Your task to perform on an android device: What is the news today? Image 0: 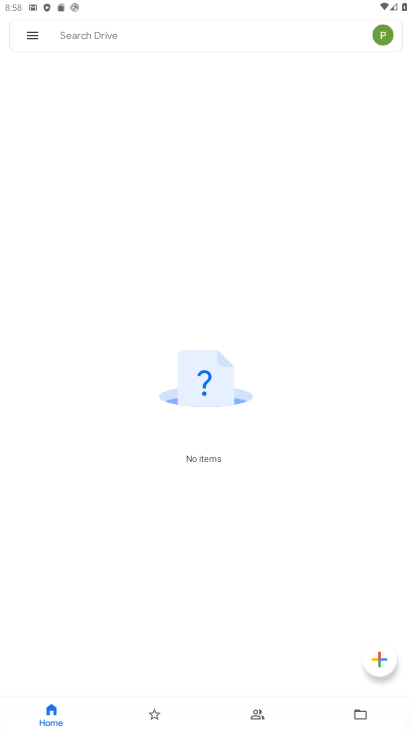
Step 0: press home button
Your task to perform on an android device: What is the news today? Image 1: 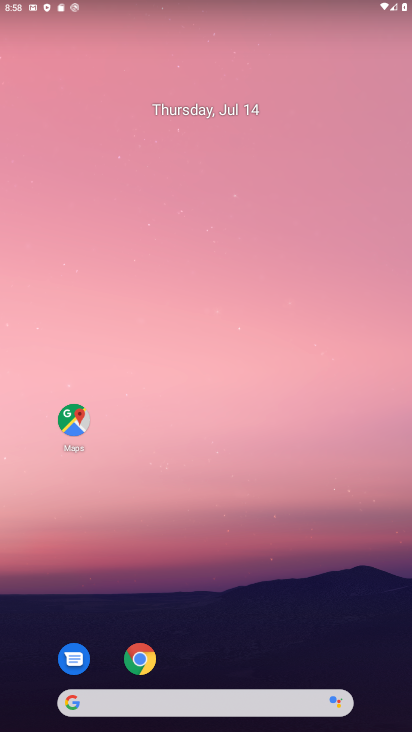
Step 1: click (80, 696)
Your task to perform on an android device: What is the news today? Image 2: 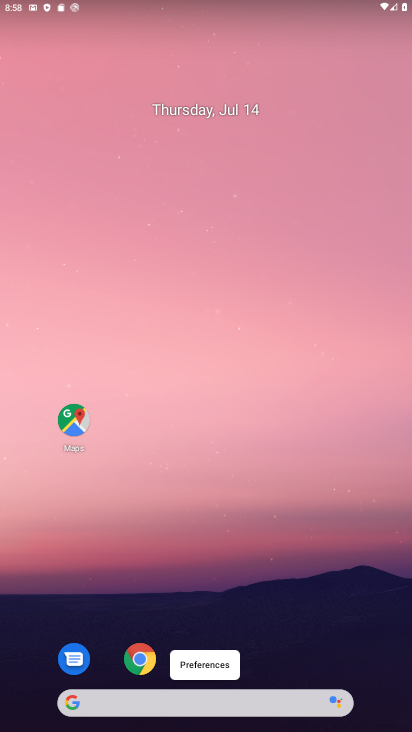
Step 2: click (74, 695)
Your task to perform on an android device: What is the news today? Image 3: 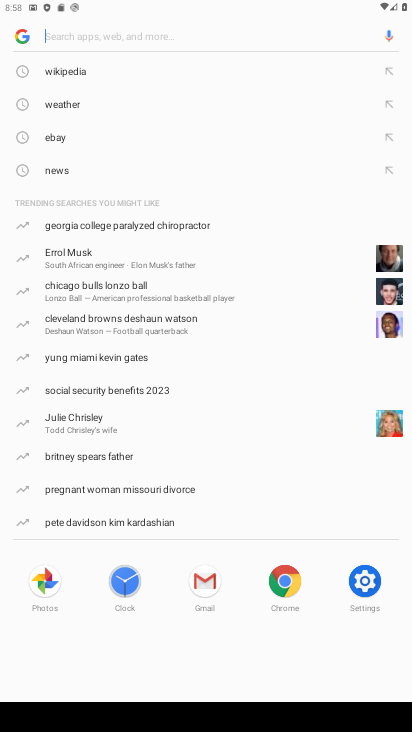
Step 3: type "news today?"
Your task to perform on an android device: What is the news today? Image 4: 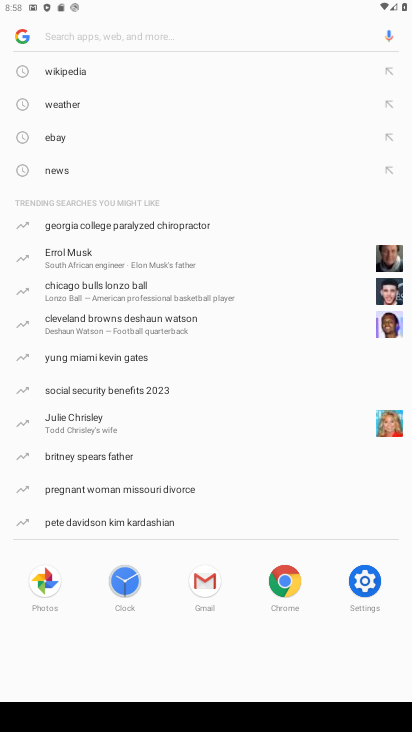
Step 4: click (104, 34)
Your task to perform on an android device: What is the news today? Image 5: 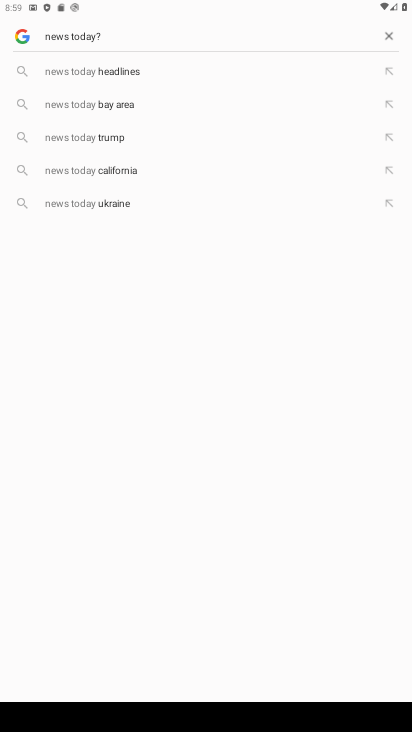
Step 5: press enter
Your task to perform on an android device: What is the news today? Image 6: 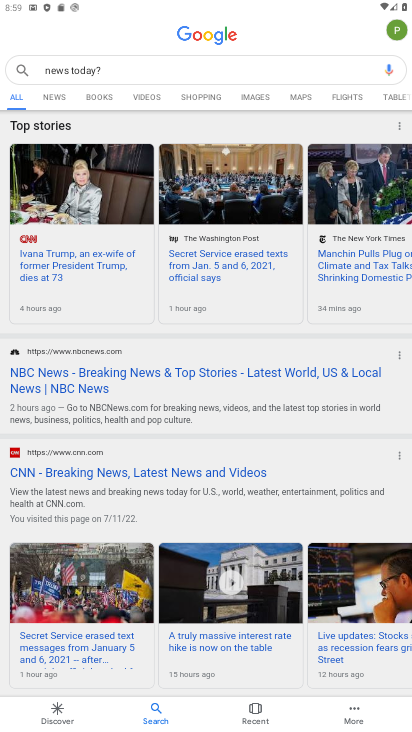
Step 6: task complete